Your task to perform on an android device: turn on improve location accuracy Image 0: 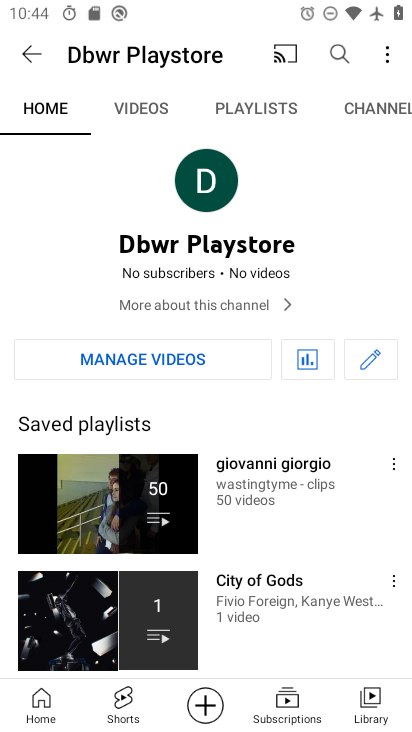
Step 0: press home button
Your task to perform on an android device: turn on improve location accuracy Image 1: 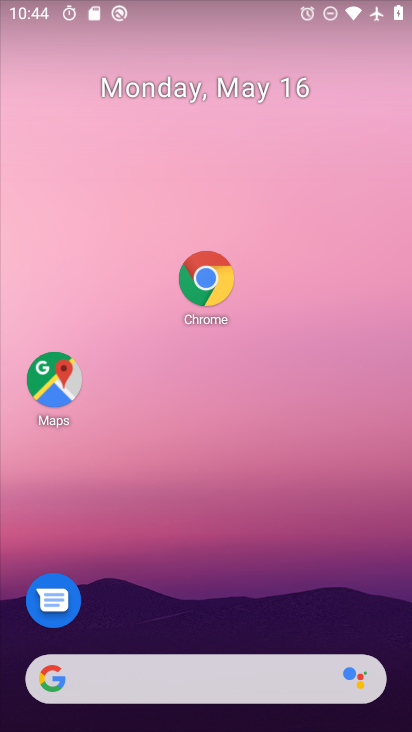
Step 1: drag from (180, 672) to (361, 113)
Your task to perform on an android device: turn on improve location accuracy Image 2: 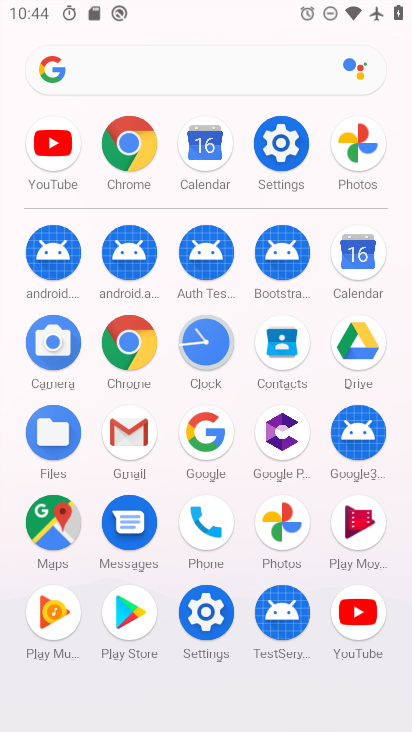
Step 2: click (289, 145)
Your task to perform on an android device: turn on improve location accuracy Image 3: 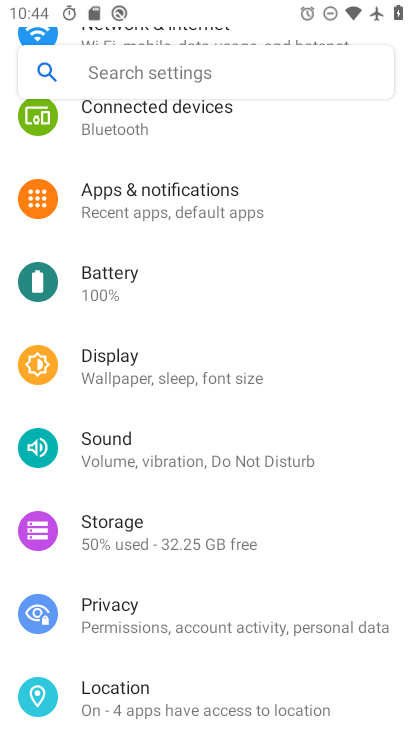
Step 3: click (158, 699)
Your task to perform on an android device: turn on improve location accuracy Image 4: 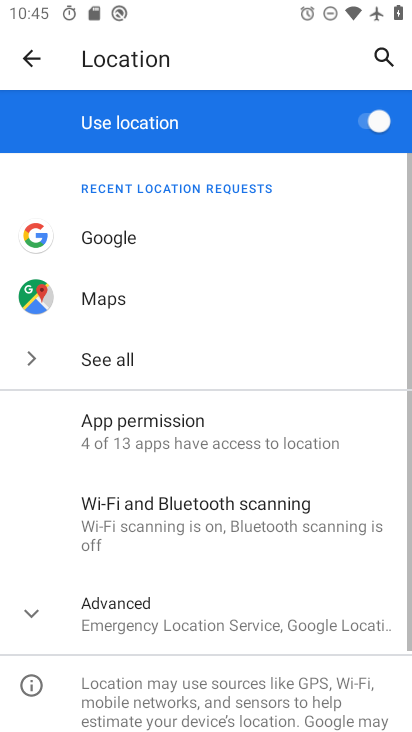
Step 4: click (184, 627)
Your task to perform on an android device: turn on improve location accuracy Image 5: 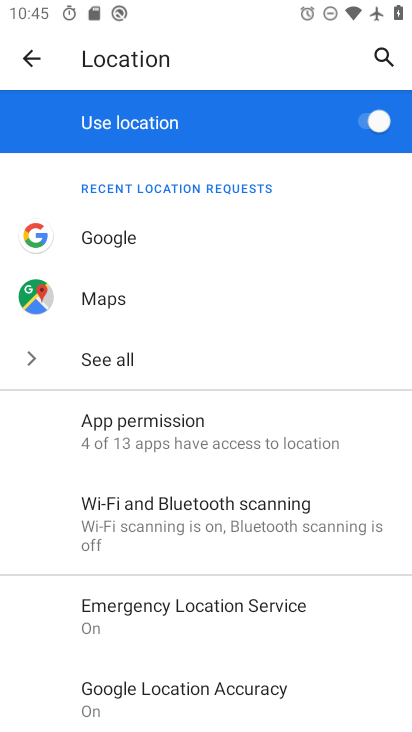
Step 5: drag from (214, 611) to (350, 195)
Your task to perform on an android device: turn on improve location accuracy Image 6: 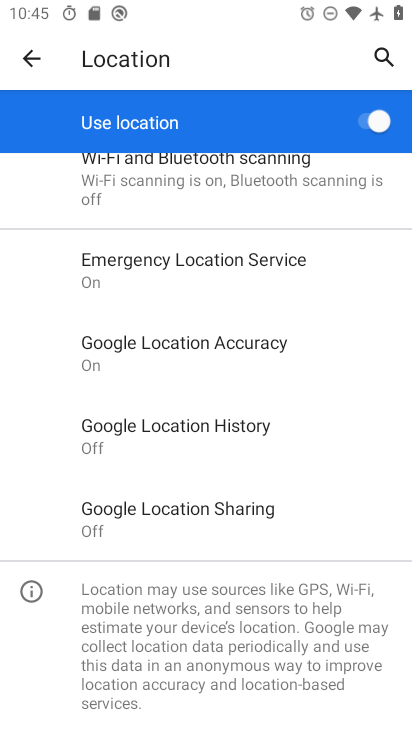
Step 6: click (231, 345)
Your task to perform on an android device: turn on improve location accuracy Image 7: 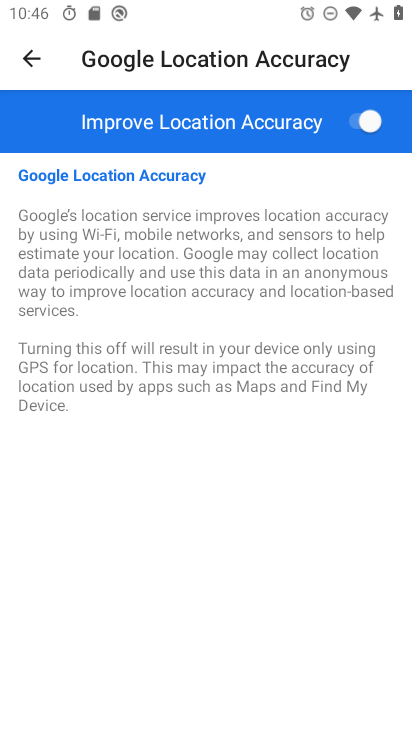
Step 7: task complete